Your task to perform on an android device: change timer sound Image 0: 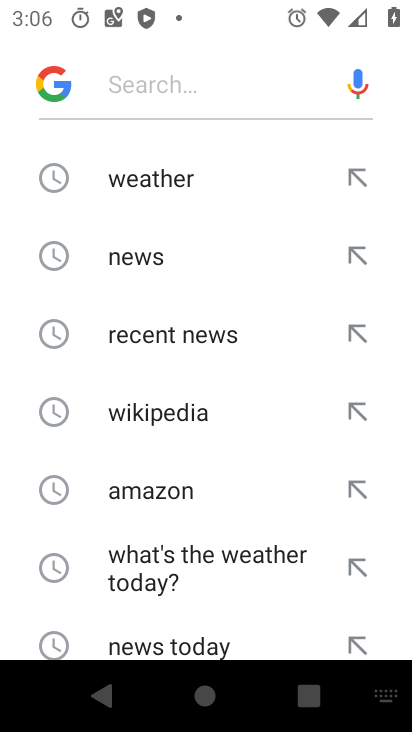
Step 0: press home button
Your task to perform on an android device: change timer sound Image 1: 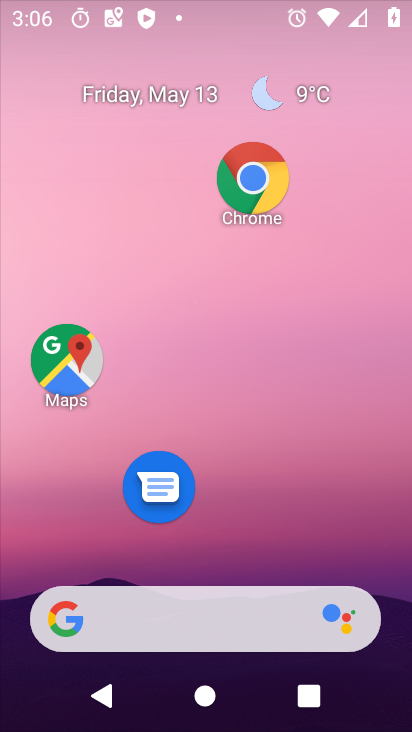
Step 1: drag from (271, 543) to (310, 64)
Your task to perform on an android device: change timer sound Image 2: 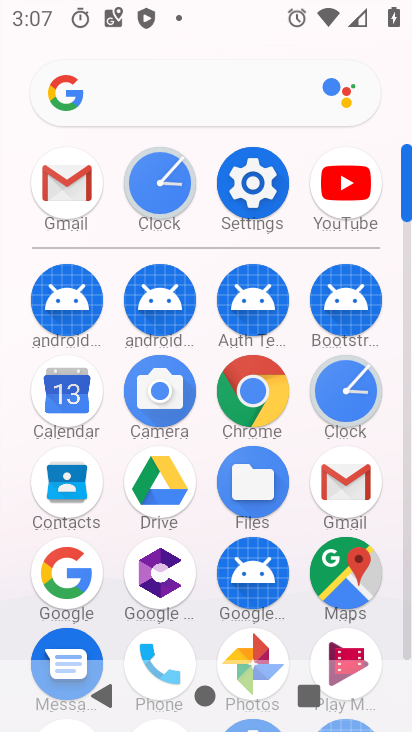
Step 2: click (347, 388)
Your task to perform on an android device: change timer sound Image 3: 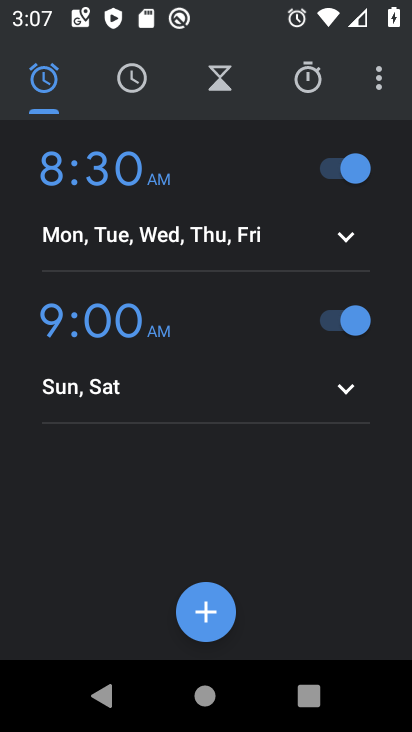
Step 3: click (374, 67)
Your task to perform on an android device: change timer sound Image 4: 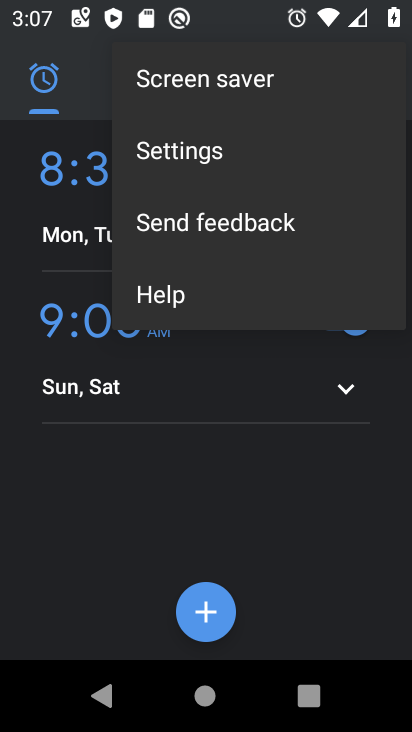
Step 4: click (200, 159)
Your task to perform on an android device: change timer sound Image 5: 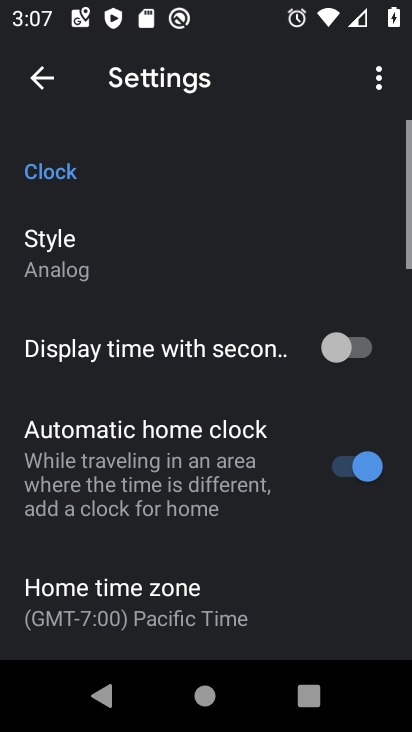
Step 5: drag from (205, 510) to (223, 22)
Your task to perform on an android device: change timer sound Image 6: 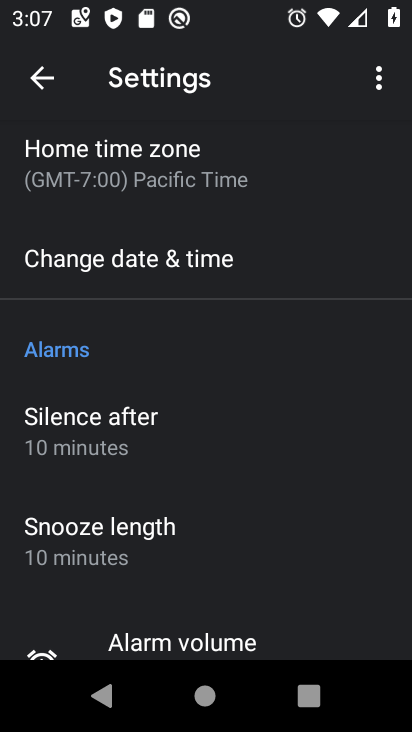
Step 6: drag from (171, 564) to (204, 241)
Your task to perform on an android device: change timer sound Image 7: 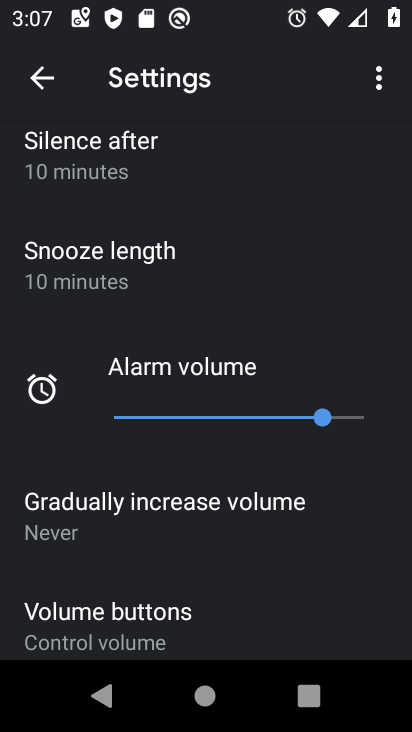
Step 7: drag from (142, 187) to (163, 609)
Your task to perform on an android device: change timer sound Image 8: 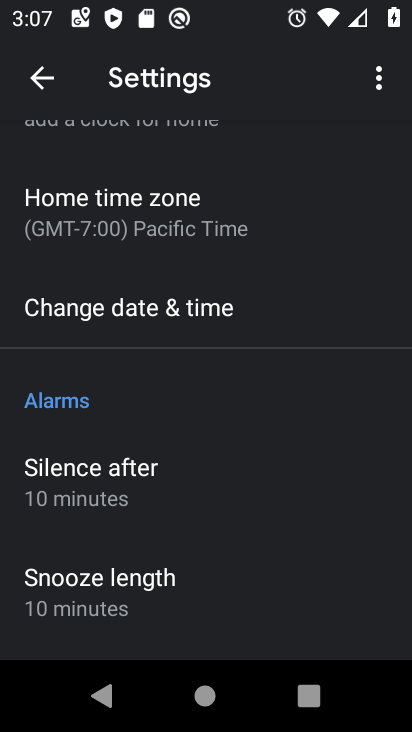
Step 8: drag from (175, 214) to (234, 588)
Your task to perform on an android device: change timer sound Image 9: 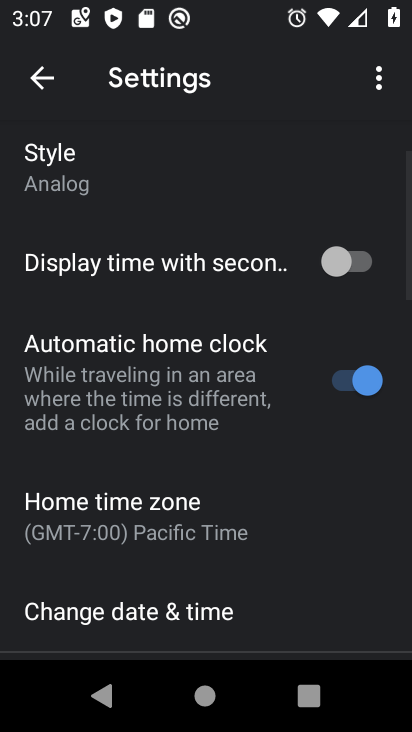
Step 9: drag from (150, 220) to (297, 7)
Your task to perform on an android device: change timer sound Image 10: 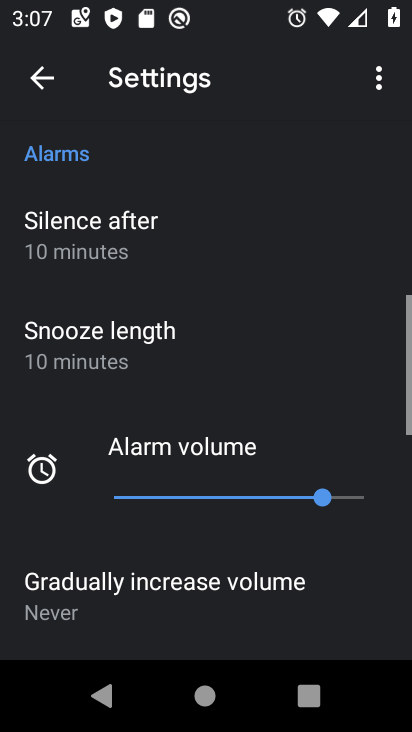
Step 10: drag from (211, 514) to (233, 125)
Your task to perform on an android device: change timer sound Image 11: 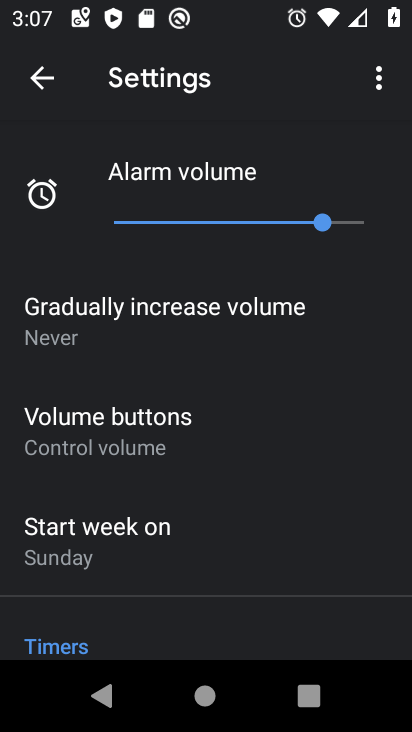
Step 11: drag from (185, 603) to (183, 231)
Your task to perform on an android device: change timer sound Image 12: 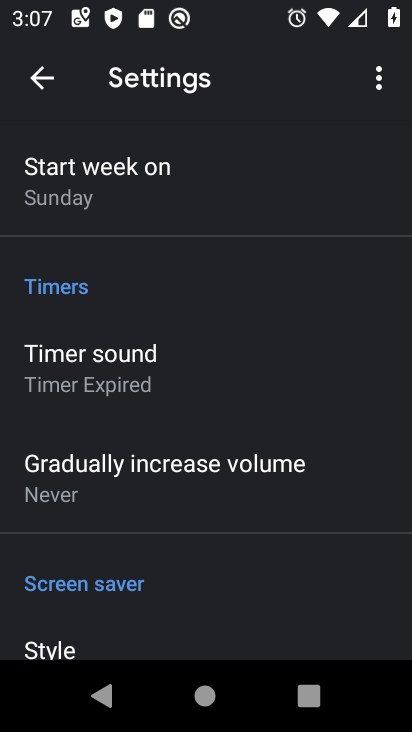
Step 12: click (123, 375)
Your task to perform on an android device: change timer sound Image 13: 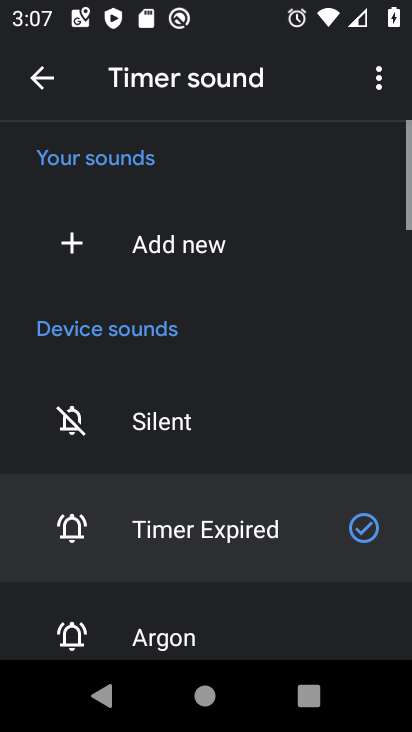
Step 13: click (151, 629)
Your task to perform on an android device: change timer sound Image 14: 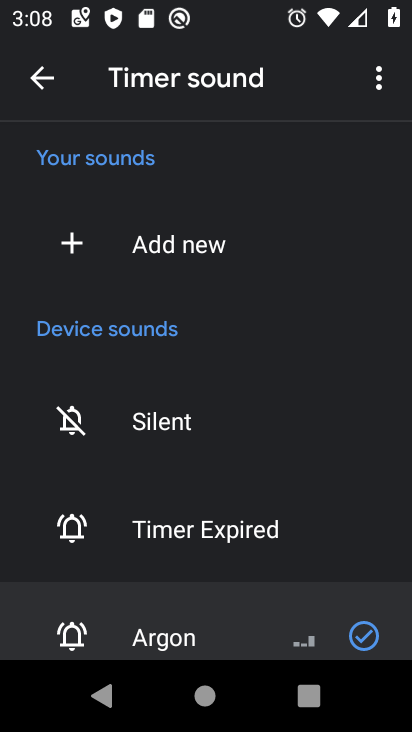
Step 14: task complete